Your task to perform on an android device: Open calendar and show me the first week of next month Image 0: 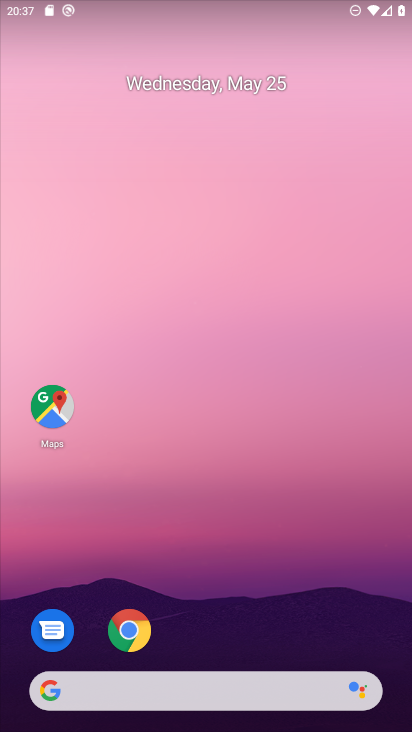
Step 0: drag from (214, 620) to (270, 110)
Your task to perform on an android device: Open calendar and show me the first week of next month Image 1: 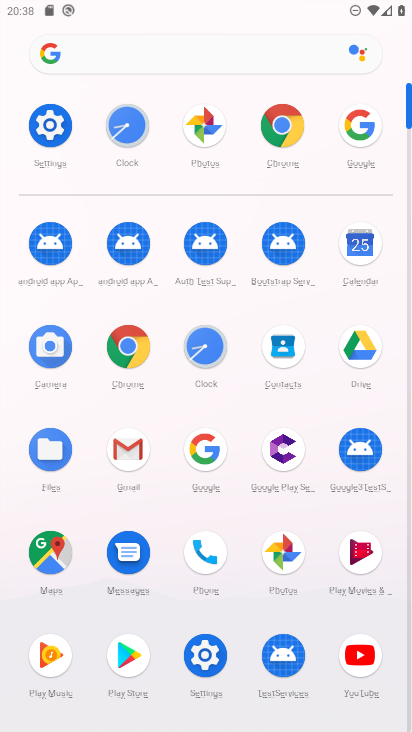
Step 1: click (371, 243)
Your task to perform on an android device: Open calendar and show me the first week of next month Image 2: 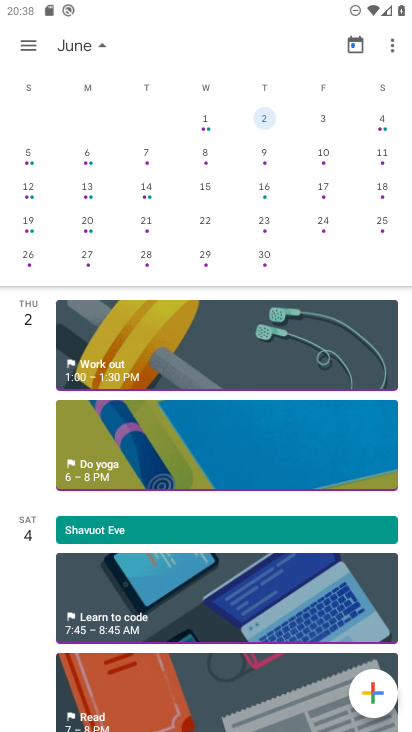
Step 2: task complete